Your task to perform on an android device: Who is the president of the United States? Image 0: 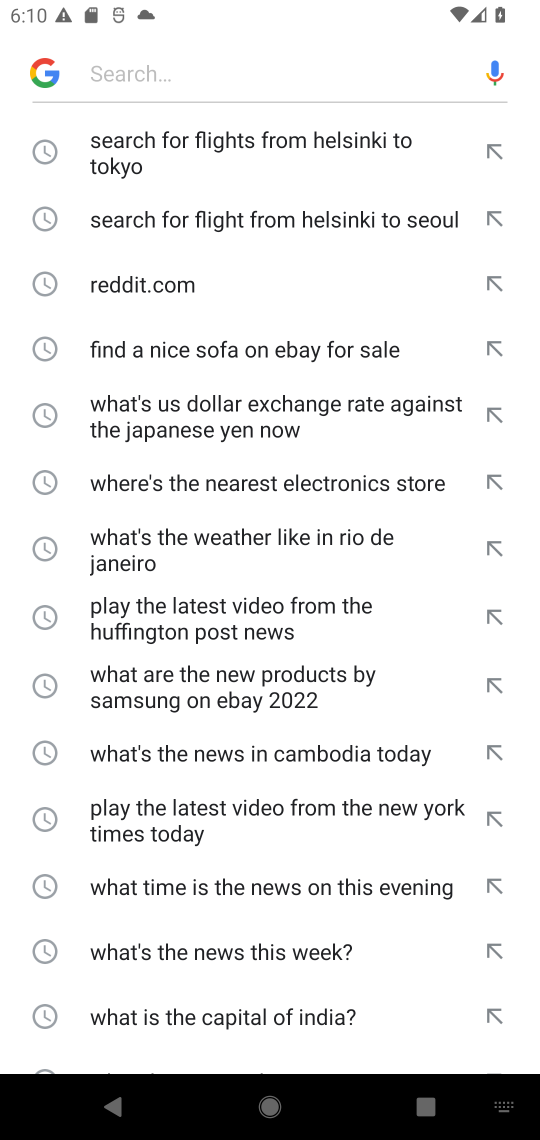
Step 0: type "Who is the president of the United States?"
Your task to perform on an android device: Who is the president of the United States? Image 1: 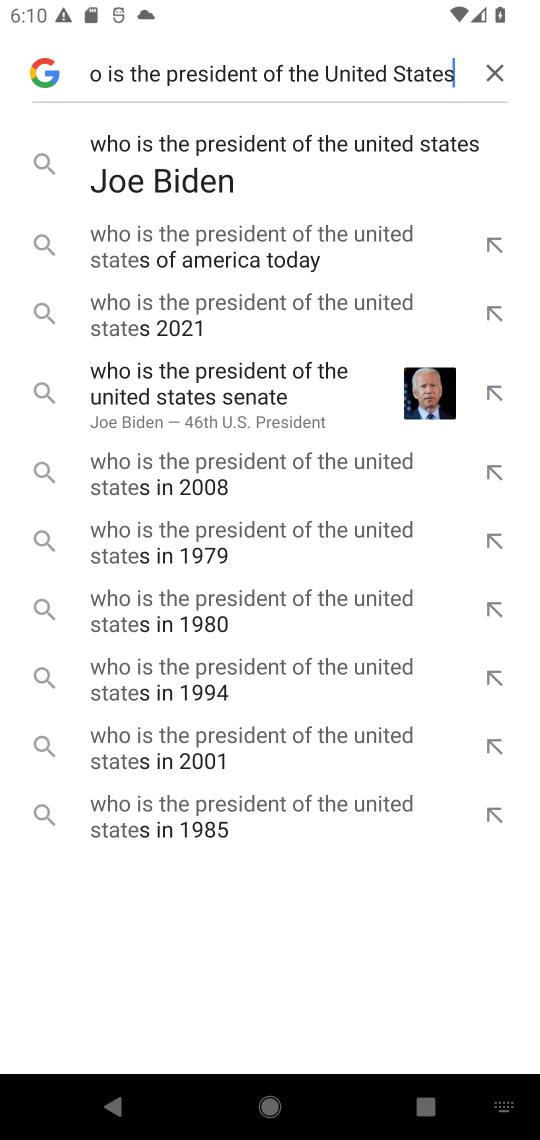
Step 1: type ""
Your task to perform on an android device: Who is the president of the United States? Image 2: 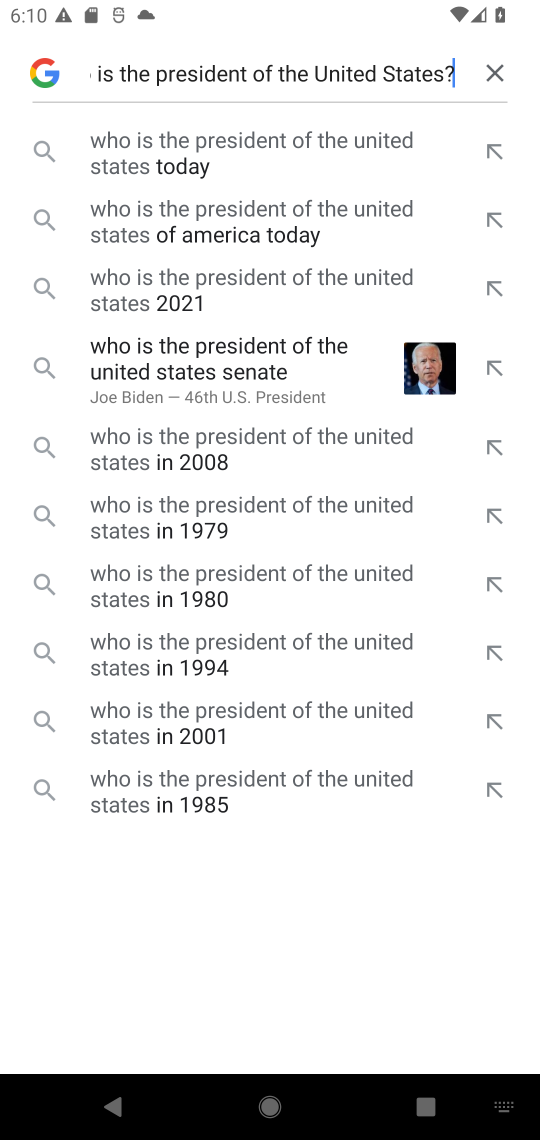
Step 2: click (207, 132)
Your task to perform on an android device: Who is the president of the United States? Image 3: 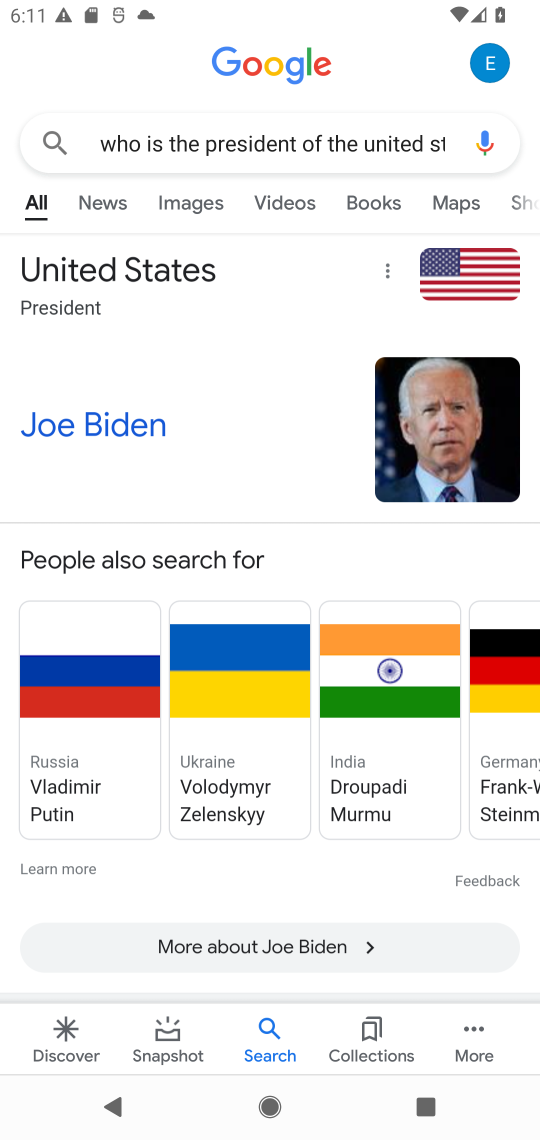
Step 3: task complete